Your task to perform on an android device: Open display settings Image 0: 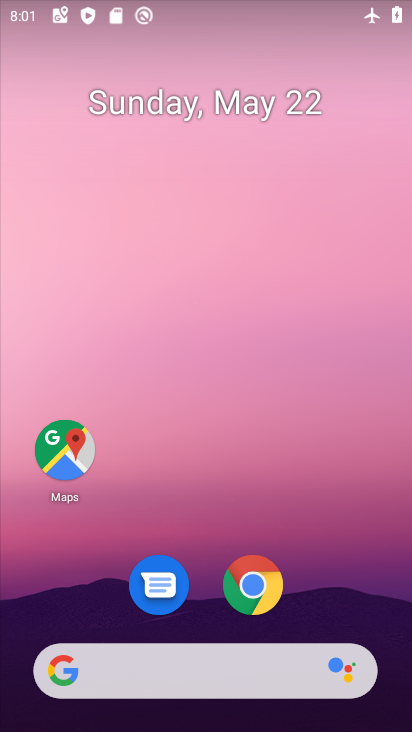
Step 0: drag from (265, 506) to (219, 12)
Your task to perform on an android device: Open display settings Image 1: 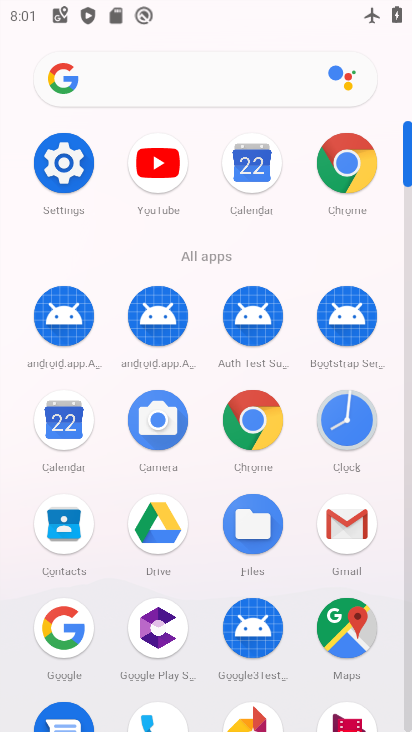
Step 1: click (58, 155)
Your task to perform on an android device: Open display settings Image 2: 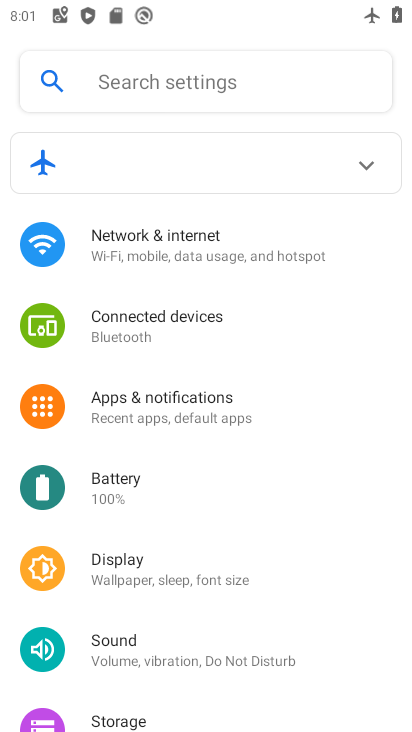
Step 2: click (153, 580)
Your task to perform on an android device: Open display settings Image 3: 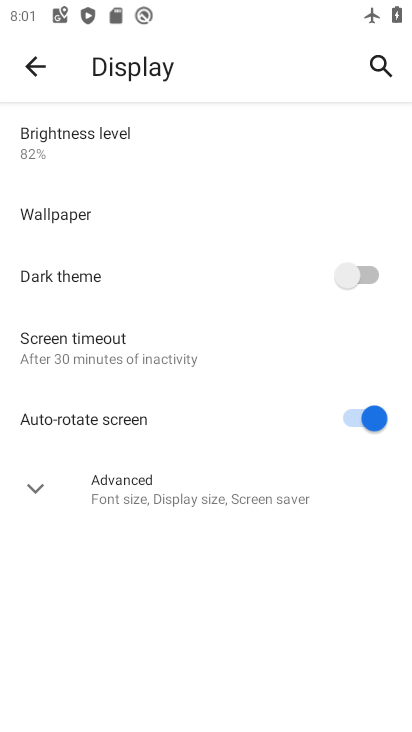
Step 3: task complete